Your task to perform on an android device: open wifi settings Image 0: 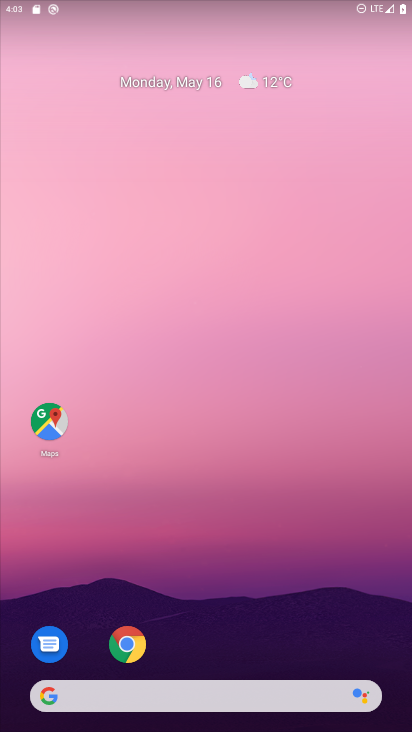
Step 0: drag from (278, 617) to (254, 142)
Your task to perform on an android device: open wifi settings Image 1: 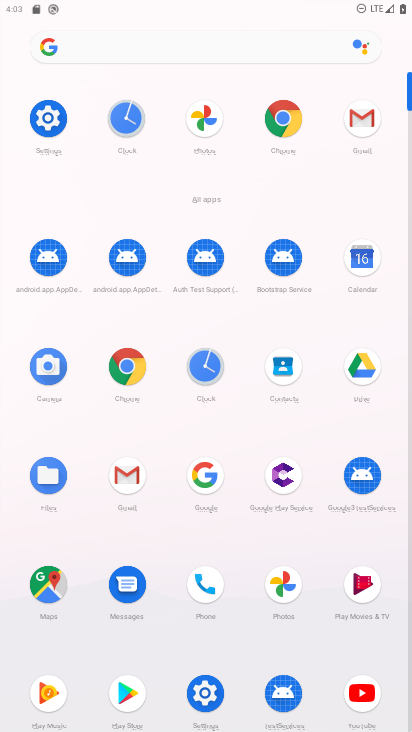
Step 1: click (56, 130)
Your task to perform on an android device: open wifi settings Image 2: 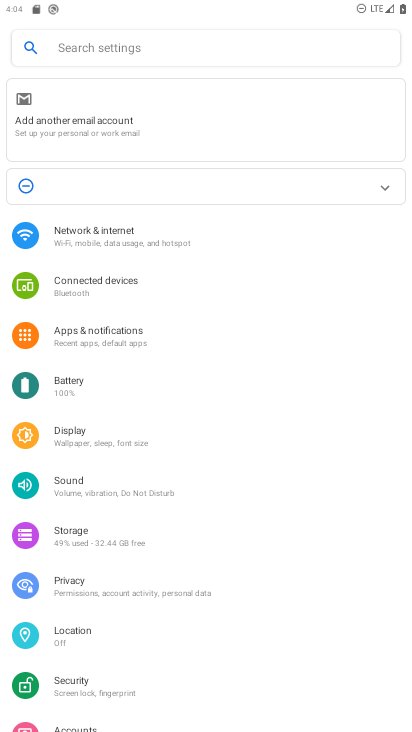
Step 2: click (172, 240)
Your task to perform on an android device: open wifi settings Image 3: 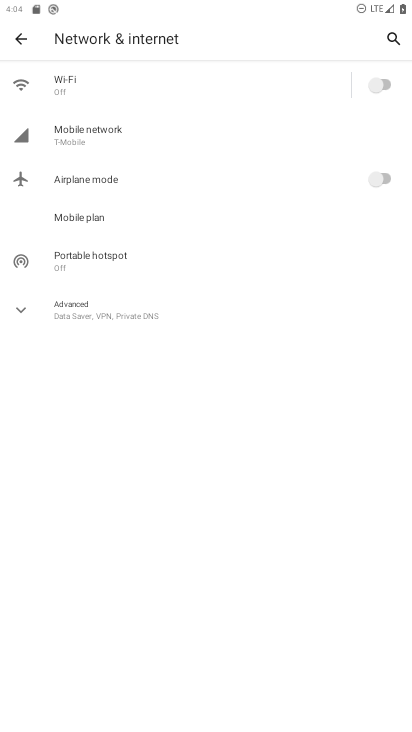
Step 3: click (180, 75)
Your task to perform on an android device: open wifi settings Image 4: 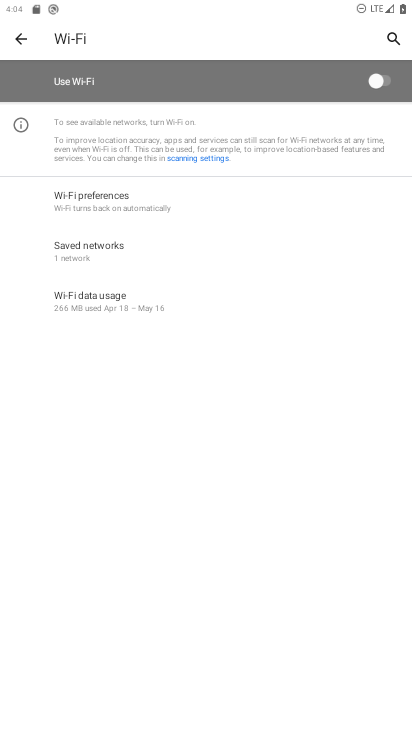
Step 4: task complete